Your task to perform on an android device: Open Chrome and go to settings Image 0: 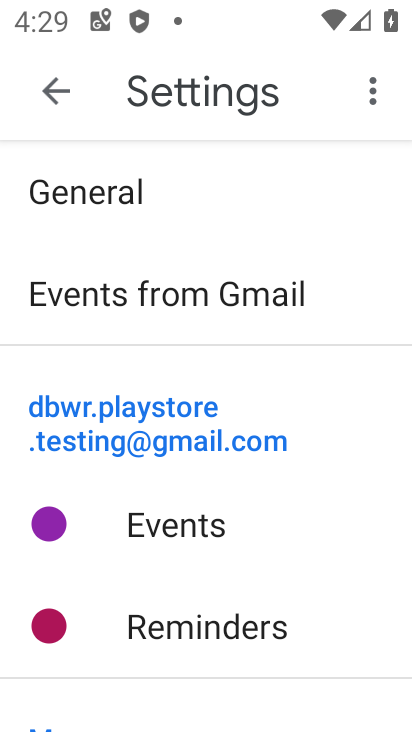
Step 0: press home button
Your task to perform on an android device: Open Chrome and go to settings Image 1: 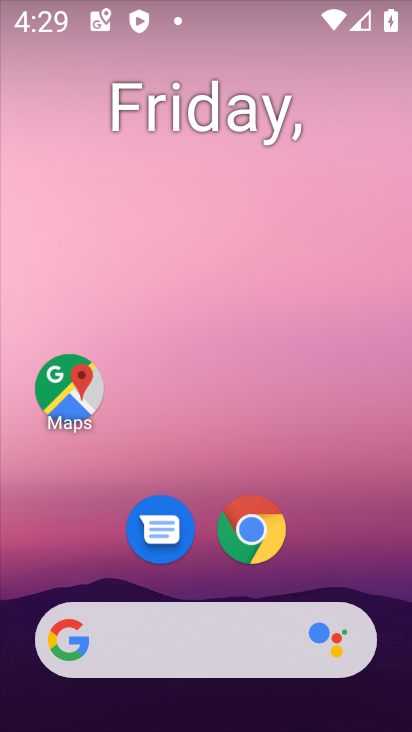
Step 1: click (255, 533)
Your task to perform on an android device: Open Chrome and go to settings Image 2: 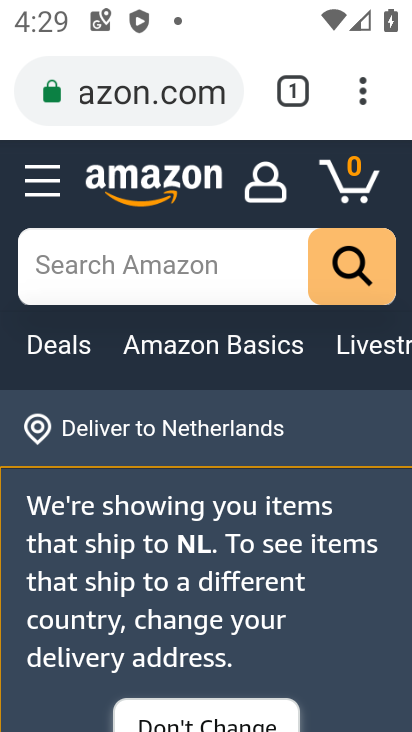
Step 2: click (363, 93)
Your task to perform on an android device: Open Chrome and go to settings Image 3: 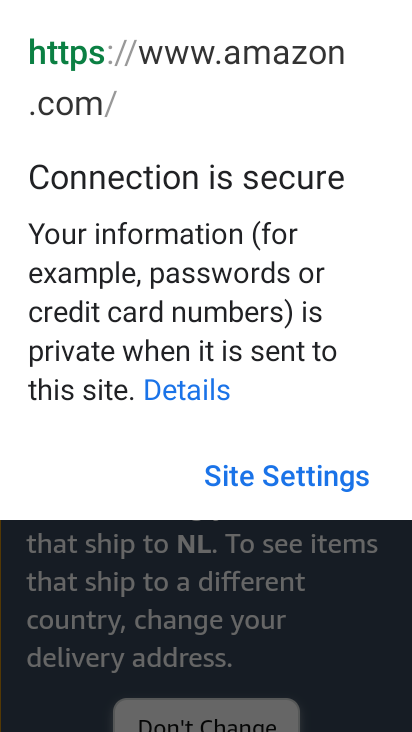
Step 3: click (207, 570)
Your task to perform on an android device: Open Chrome and go to settings Image 4: 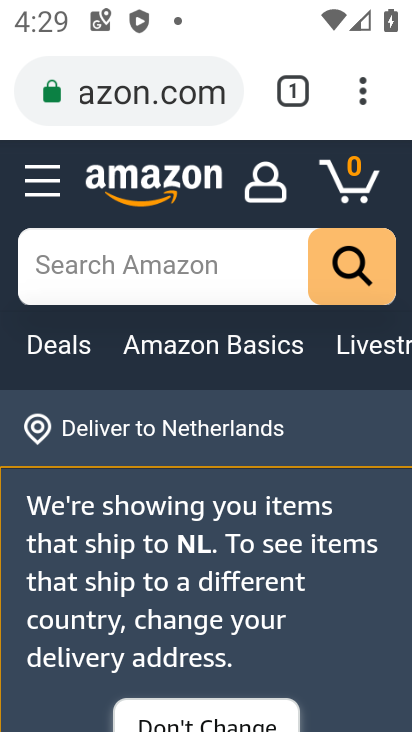
Step 4: click (362, 90)
Your task to perform on an android device: Open Chrome and go to settings Image 5: 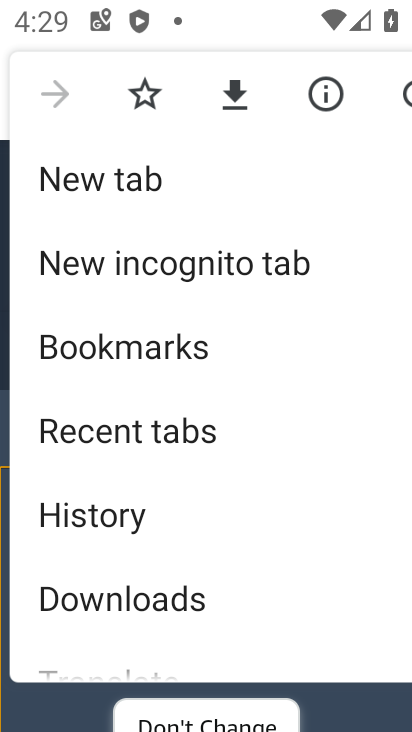
Step 5: drag from (216, 556) to (260, 196)
Your task to perform on an android device: Open Chrome and go to settings Image 6: 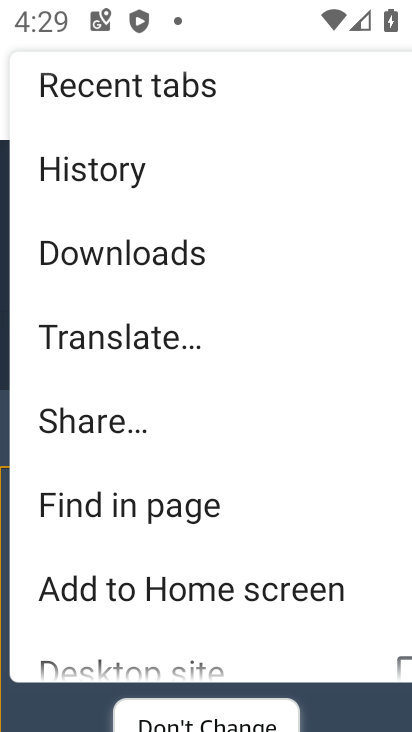
Step 6: drag from (218, 599) to (293, 204)
Your task to perform on an android device: Open Chrome and go to settings Image 7: 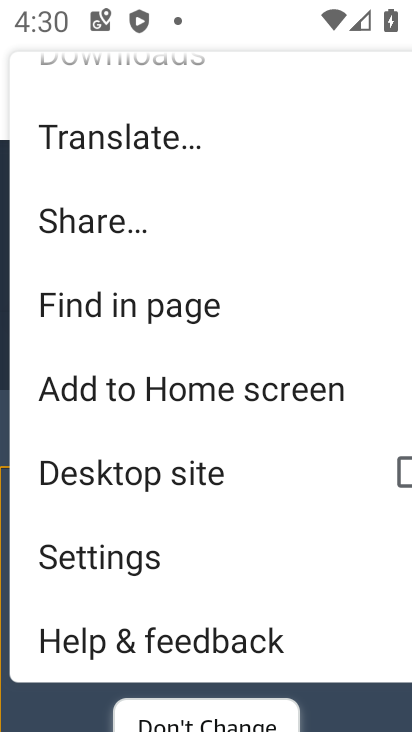
Step 7: click (122, 563)
Your task to perform on an android device: Open Chrome and go to settings Image 8: 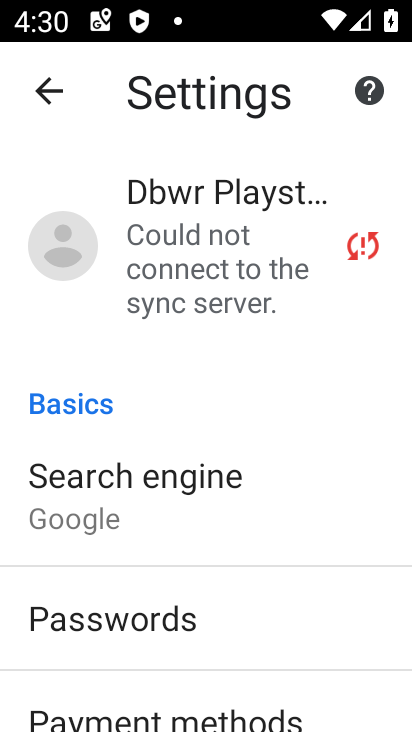
Step 8: drag from (216, 630) to (292, 252)
Your task to perform on an android device: Open Chrome and go to settings Image 9: 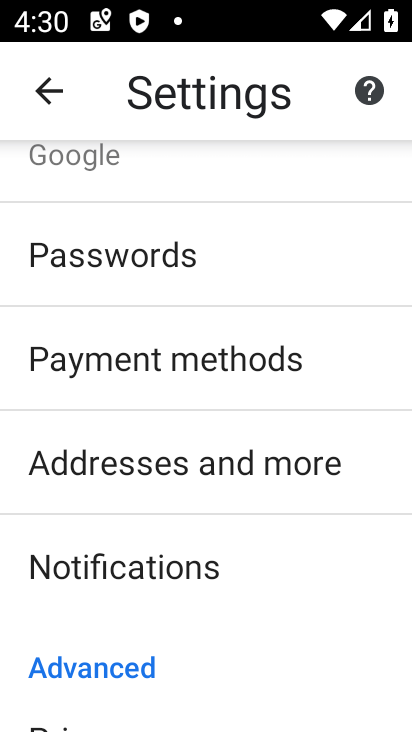
Step 9: drag from (261, 578) to (303, 260)
Your task to perform on an android device: Open Chrome and go to settings Image 10: 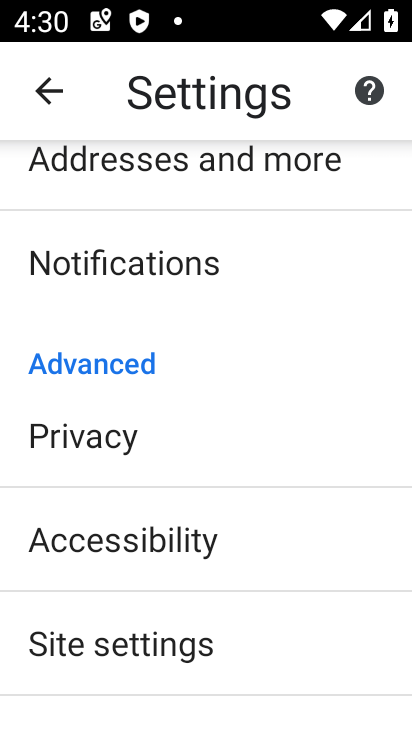
Step 10: click (306, 327)
Your task to perform on an android device: Open Chrome and go to settings Image 11: 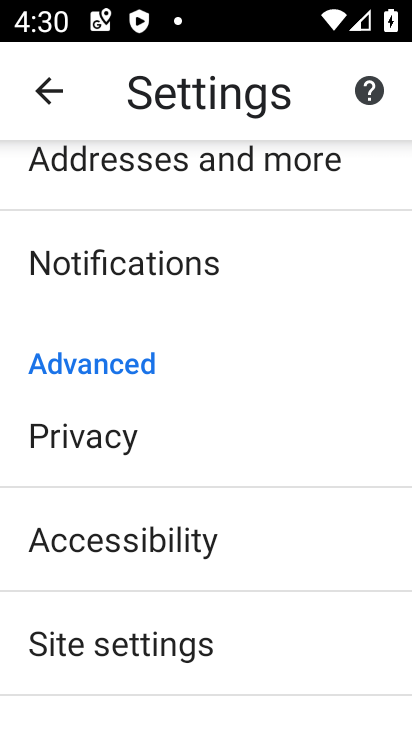
Step 11: task complete